Your task to perform on an android device: turn pop-ups on in chrome Image 0: 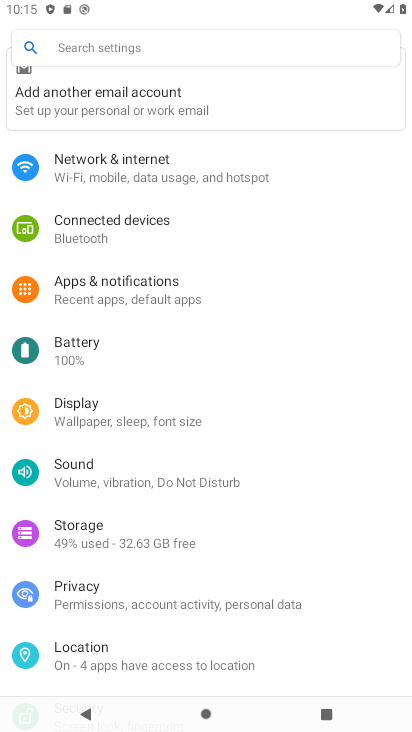
Step 0: press home button
Your task to perform on an android device: turn pop-ups on in chrome Image 1: 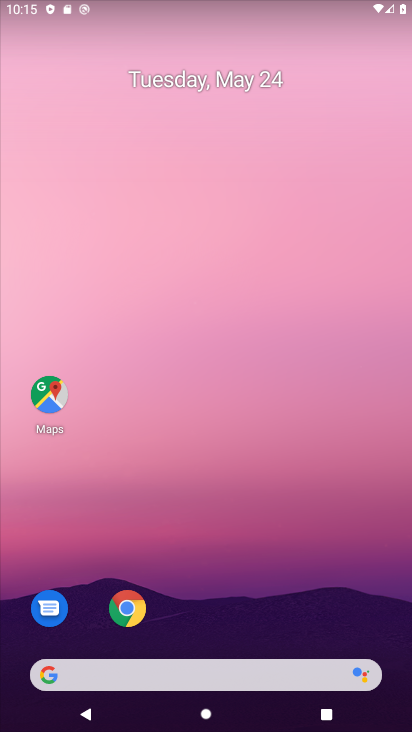
Step 1: click (128, 604)
Your task to perform on an android device: turn pop-ups on in chrome Image 2: 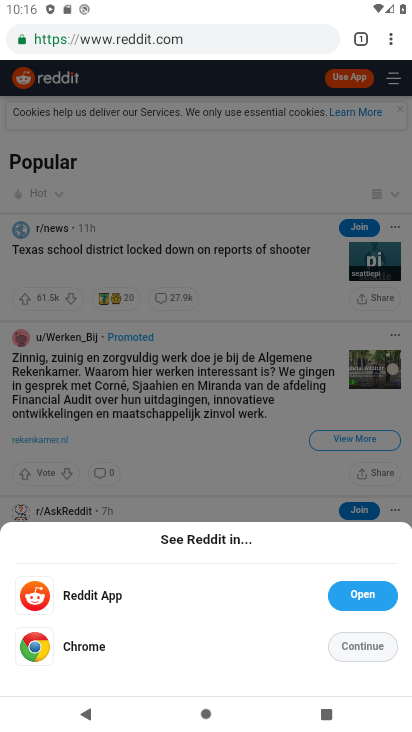
Step 2: click (390, 41)
Your task to perform on an android device: turn pop-ups on in chrome Image 3: 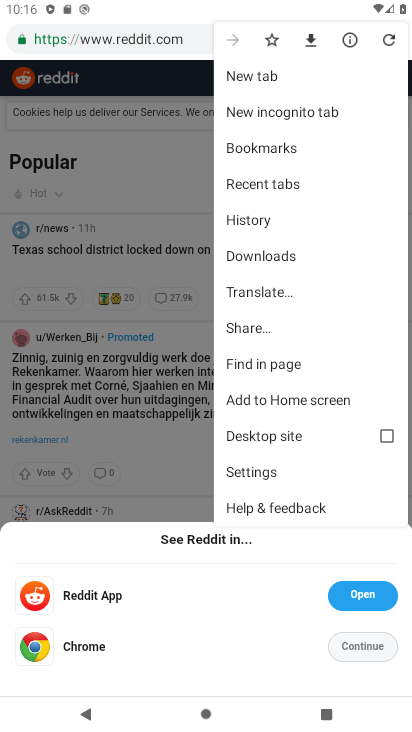
Step 3: click (258, 470)
Your task to perform on an android device: turn pop-ups on in chrome Image 4: 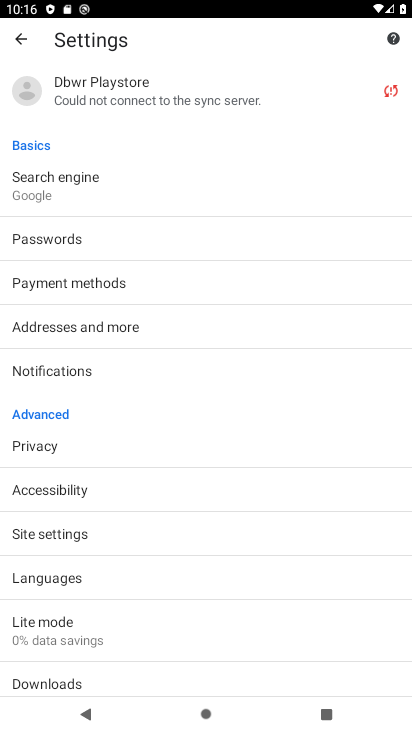
Step 4: click (58, 527)
Your task to perform on an android device: turn pop-ups on in chrome Image 5: 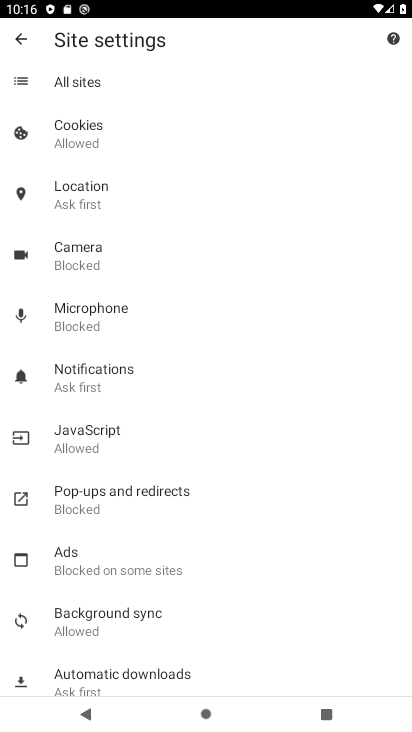
Step 5: click (106, 504)
Your task to perform on an android device: turn pop-ups on in chrome Image 6: 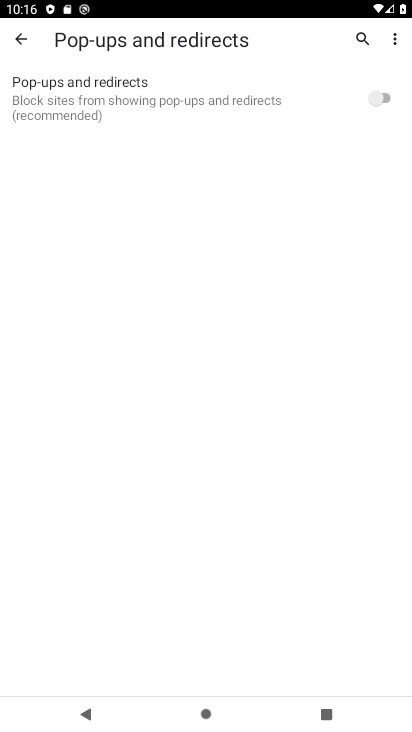
Step 6: click (387, 100)
Your task to perform on an android device: turn pop-ups on in chrome Image 7: 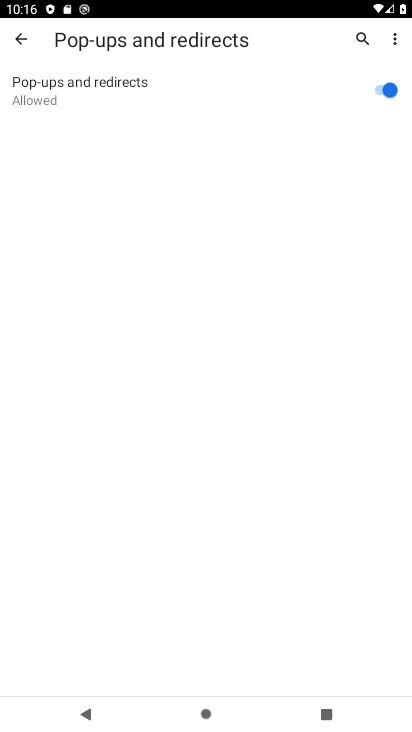
Step 7: task complete